Your task to perform on an android device: check storage Image 0: 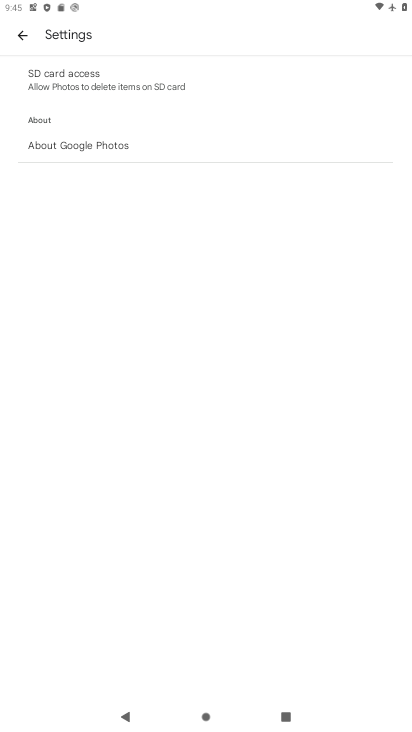
Step 0: press home button
Your task to perform on an android device: check storage Image 1: 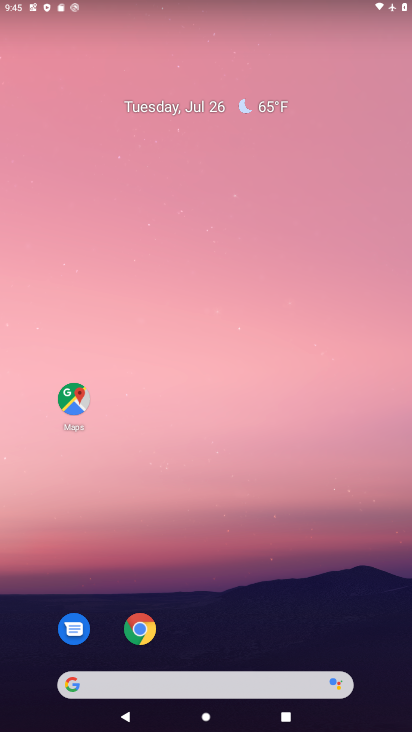
Step 1: drag from (353, 531) to (264, 10)
Your task to perform on an android device: check storage Image 2: 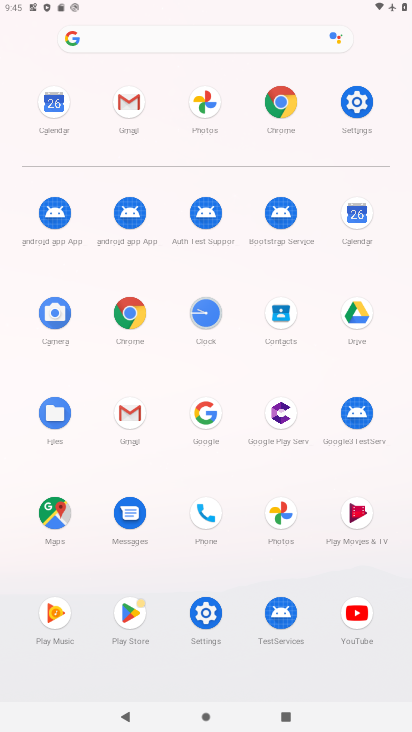
Step 2: click (355, 96)
Your task to perform on an android device: check storage Image 3: 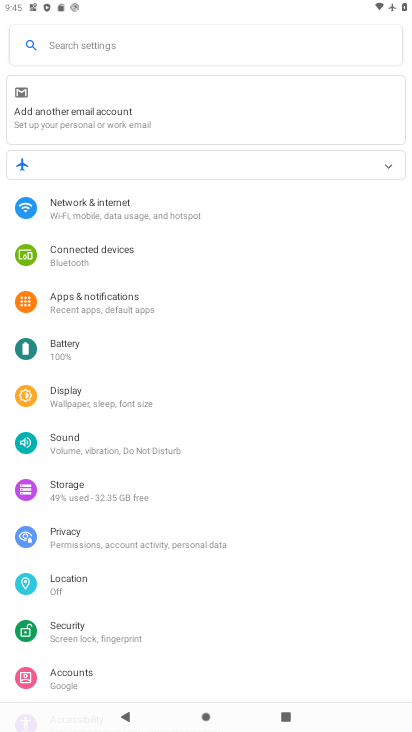
Step 3: click (139, 493)
Your task to perform on an android device: check storage Image 4: 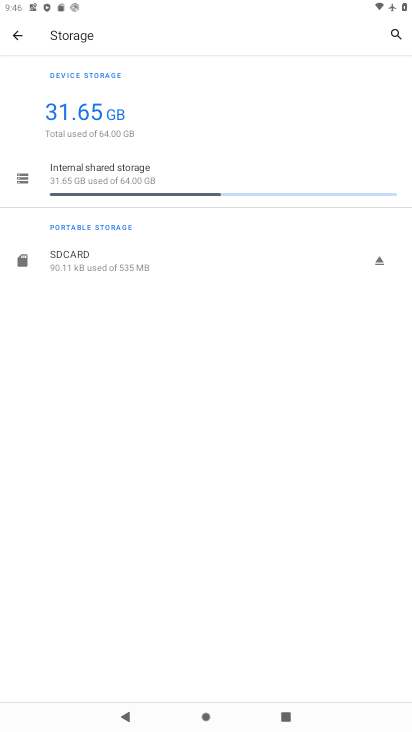
Step 4: task complete